Your task to perform on an android device: Add sony triple a to the cart on amazon.com Image 0: 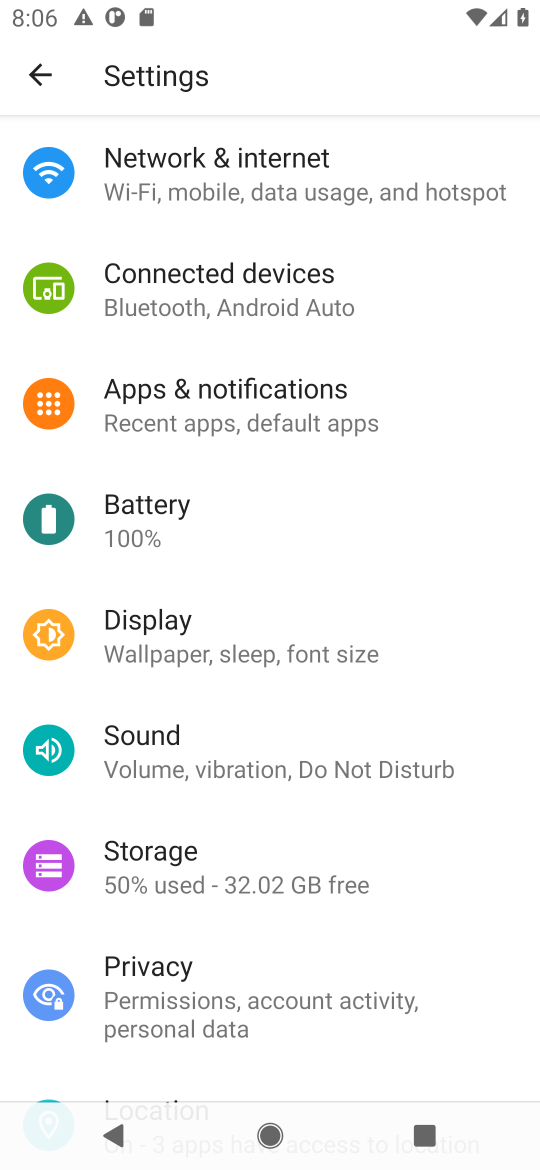
Step 0: press home button
Your task to perform on an android device: Add sony triple a to the cart on amazon.com Image 1: 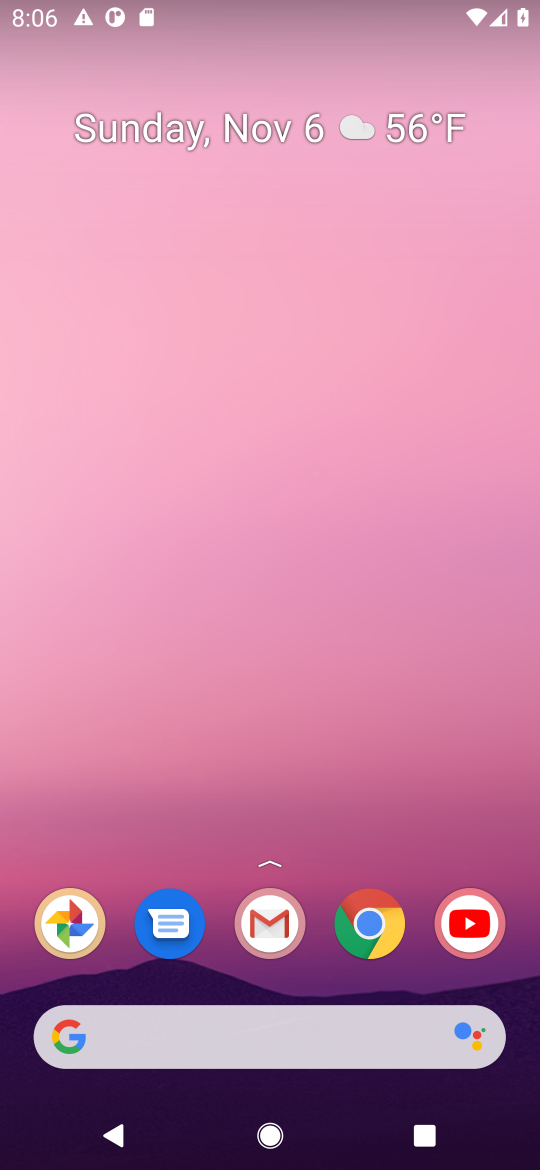
Step 1: click (359, 938)
Your task to perform on an android device: Add sony triple a to the cart on amazon.com Image 2: 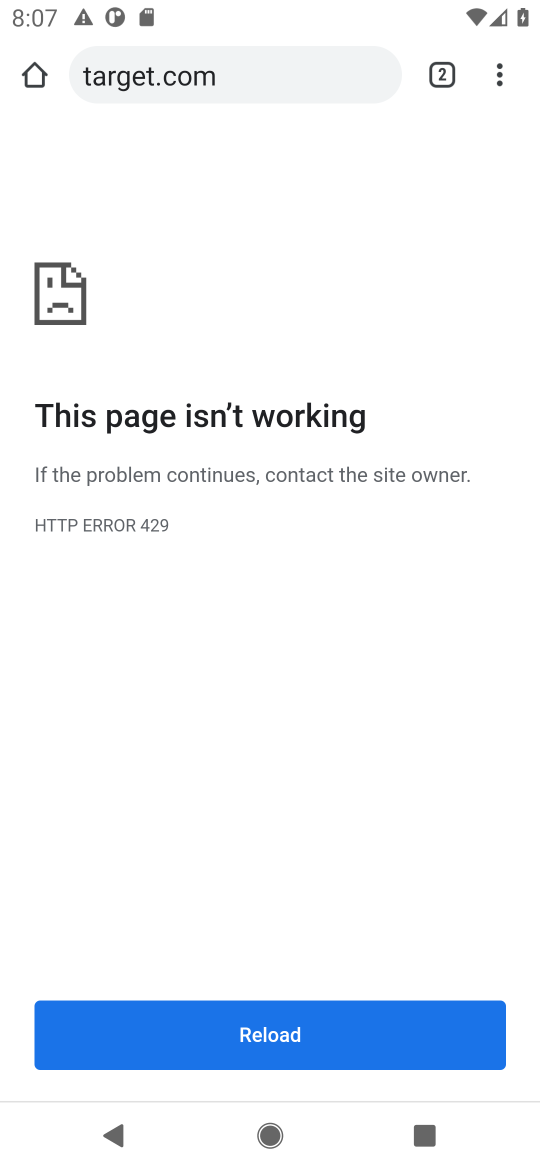
Step 2: click (210, 68)
Your task to perform on an android device: Add sony triple a to the cart on amazon.com Image 3: 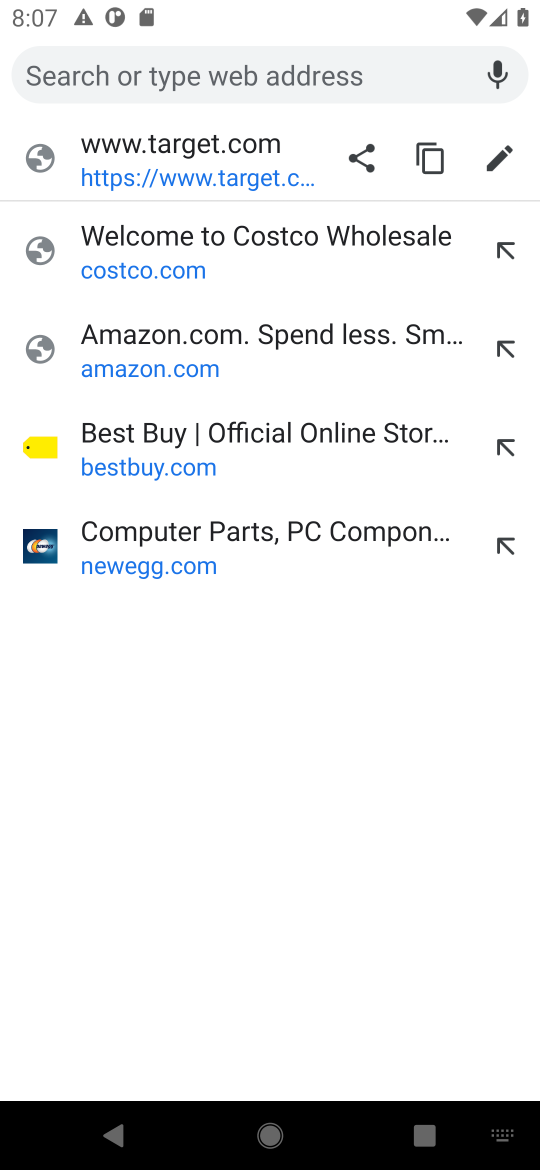
Step 3: click (120, 347)
Your task to perform on an android device: Add sony triple a to the cart on amazon.com Image 4: 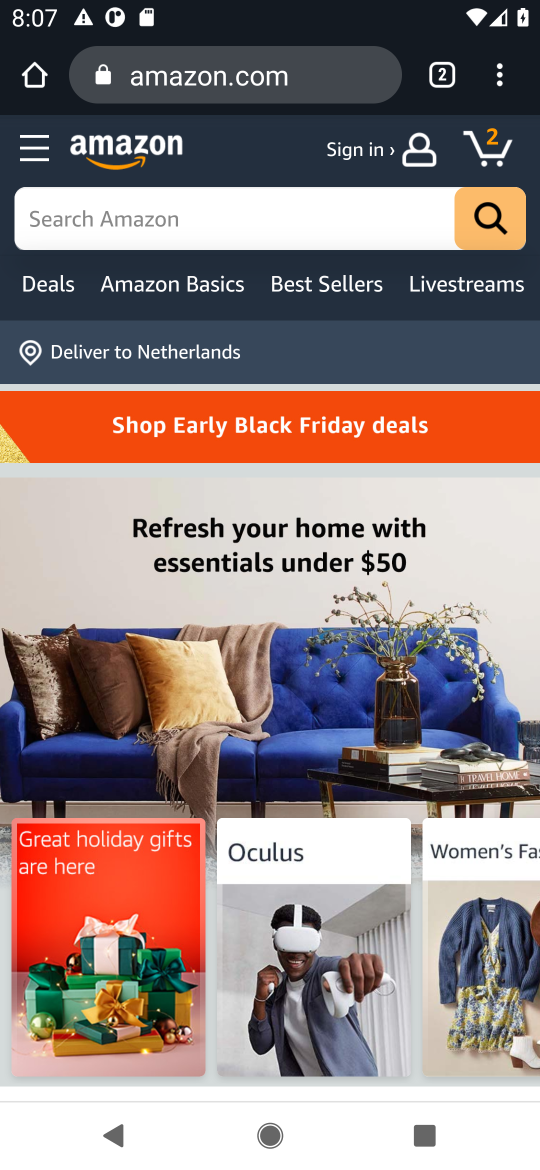
Step 4: click (87, 234)
Your task to perform on an android device: Add sony triple a to the cart on amazon.com Image 5: 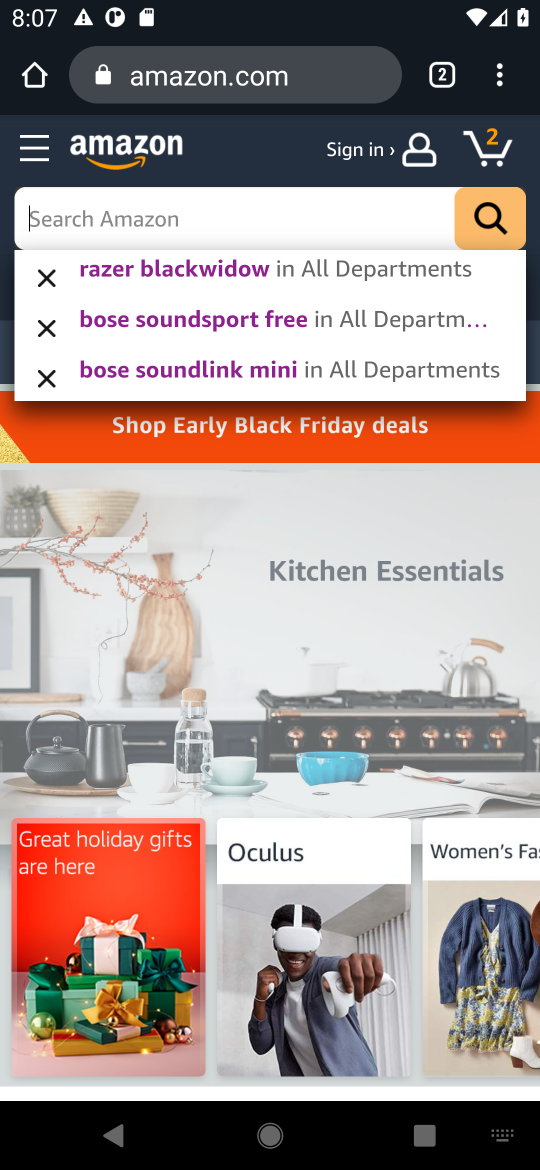
Step 5: type "sony triple a"
Your task to perform on an android device: Add sony triple a to the cart on amazon.com Image 6: 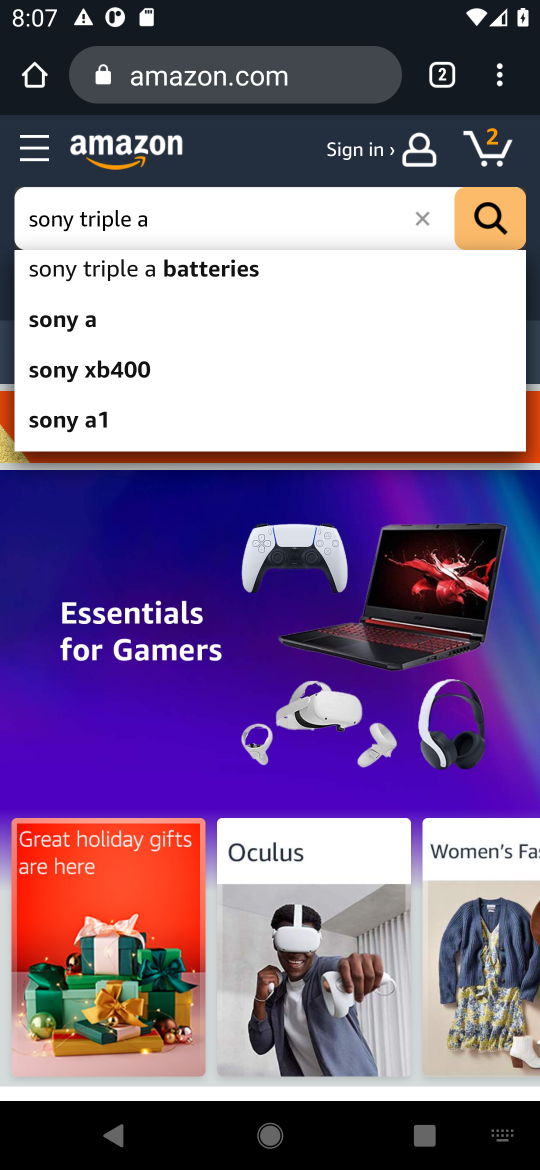
Step 6: click (479, 216)
Your task to perform on an android device: Add sony triple a to the cart on amazon.com Image 7: 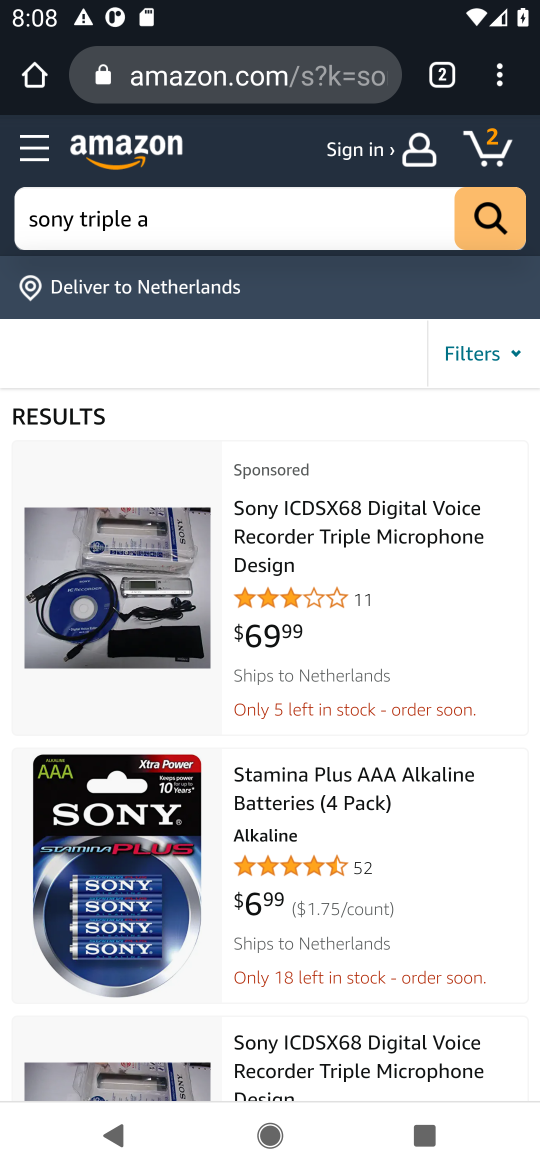
Step 7: click (144, 890)
Your task to perform on an android device: Add sony triple a to the cart on amazon.com Image 8: 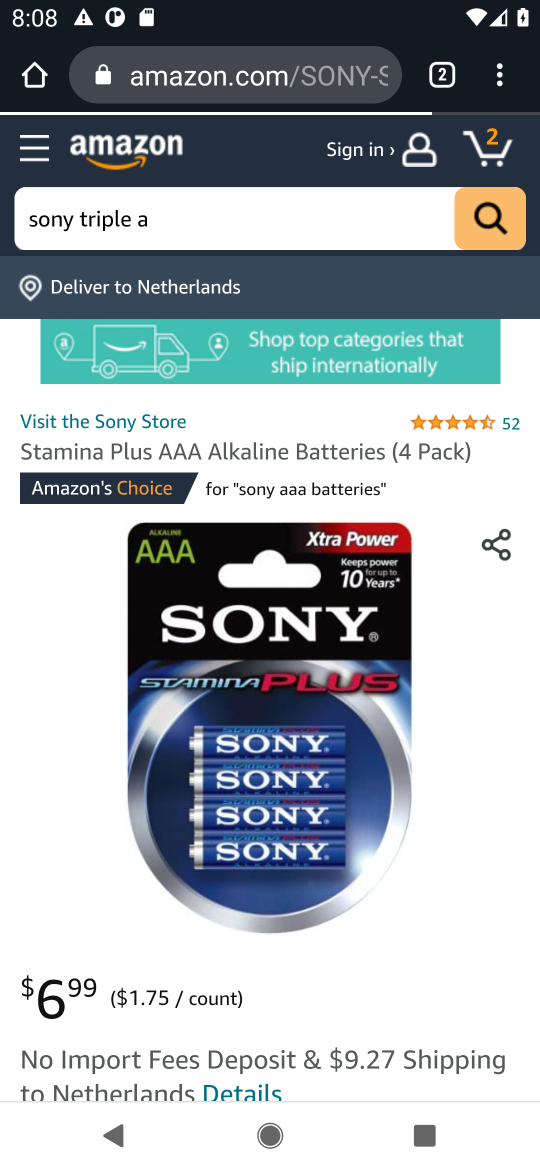
Step 8: drag from (335, 908) to (338, 609)
Your task to perform on an android device: Add sony triple a to the cart on amazon.com Image 9: 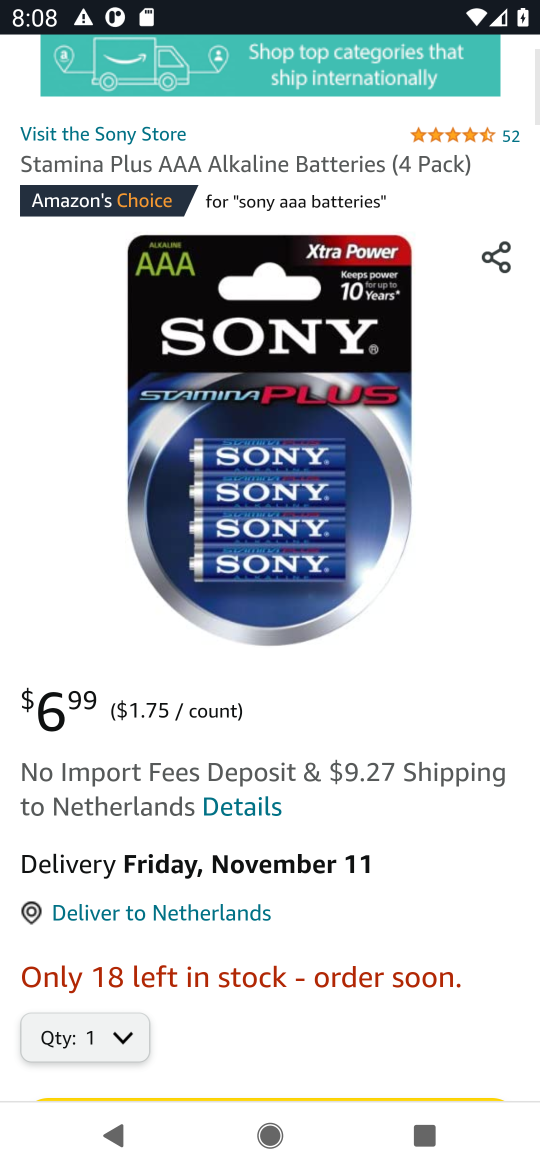
Step 9: drag from (318, 892) to (304, 462)
Your task to perform on an android device: Add sony triple a to the cart on amazon.com Image 10: 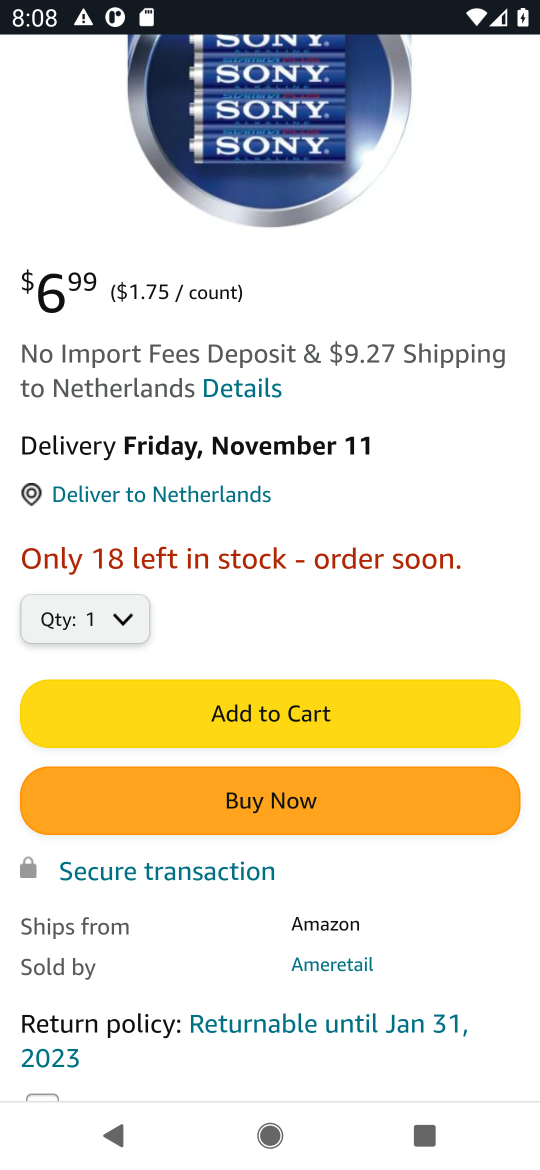
Step 10: click (235, 735)
Your task to perform on an android device: Add sony triple a to the cart on amazon.com Image 11: 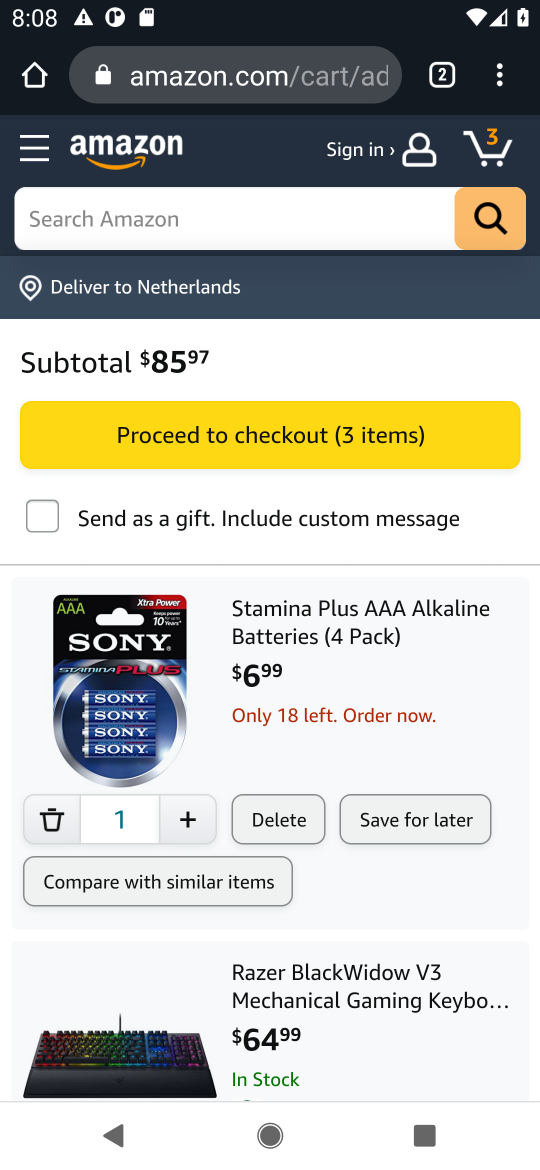
Step 11: task complete